Your task to perform on an android device: Open CNN.com Image 0: 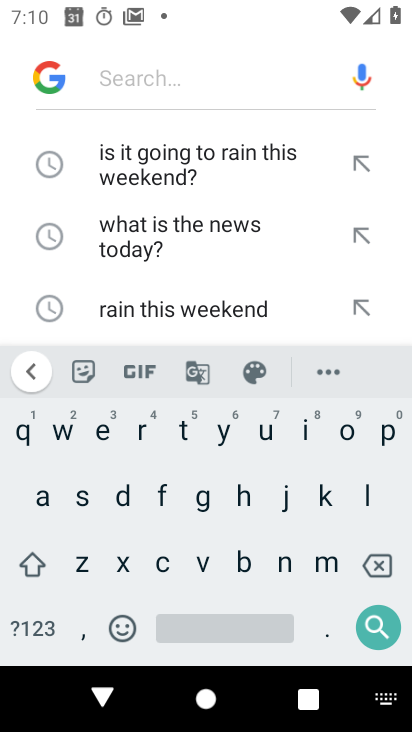
Step 0: press home button
Your task to perform on an android device: Open CNN.com Image 1: 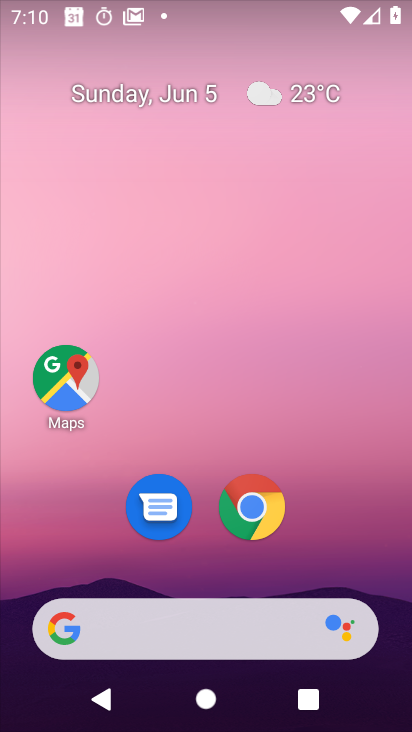
Step 1: drag from (242, 680) to (173, 58)
Your task to perform on an android device: Open CNN.com Image 2: 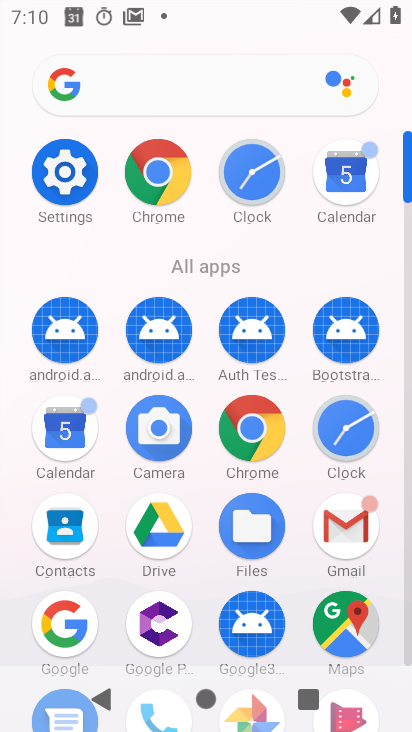
Step 2: click (172, 157)
Your task to perform on an android device: Open CNN.com Image 3: 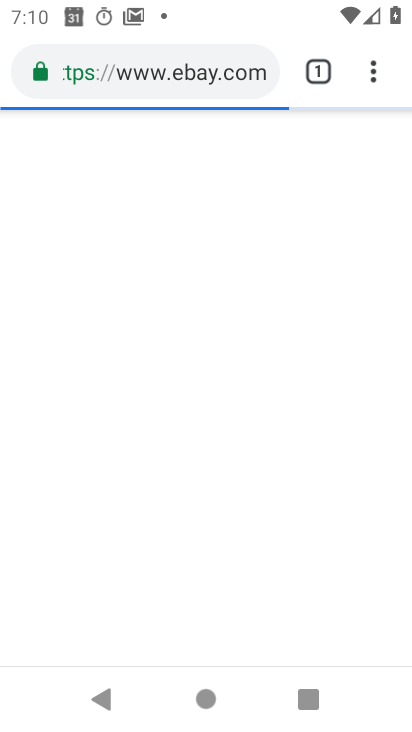
Step 3: click (157, 73)
Your task to perform on an android device: Open CNN.com Image 4: 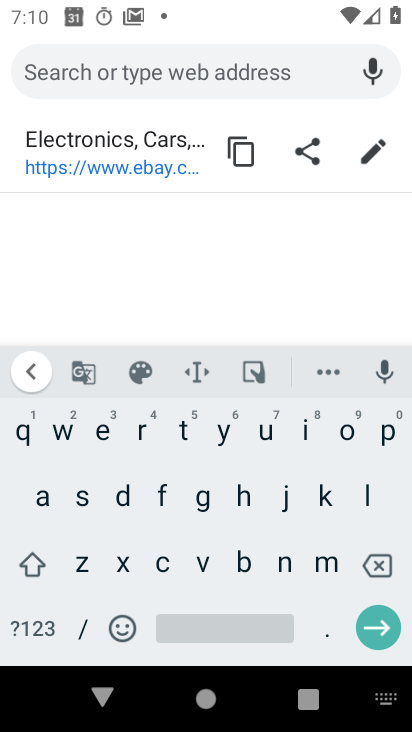
Step 4: click (160, 560)
Your task to perform on an android device: Open CNN.com Image 5: 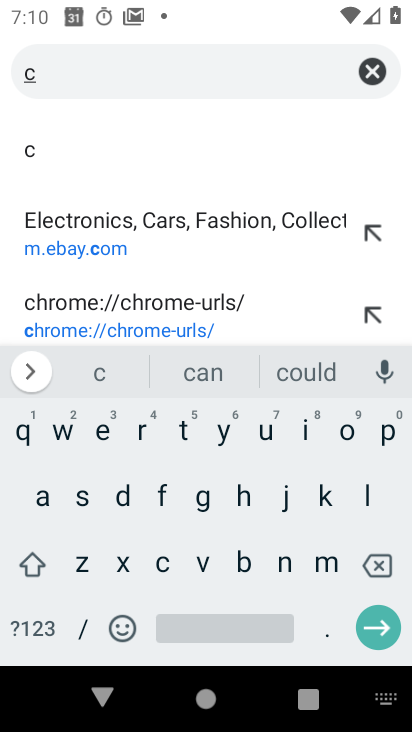
Step 5: click (285, 564)
Your task to perform on an android device: Open CNN.com Image 6: 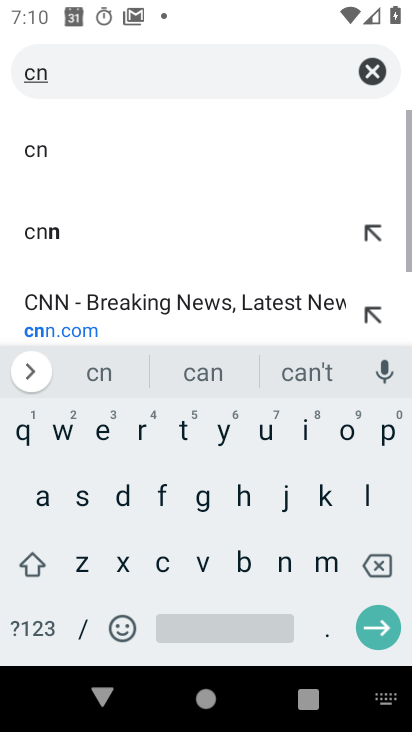
Step 6: click (285, 564)
Your task to perform on an android device: Open CNN.com Image 7: 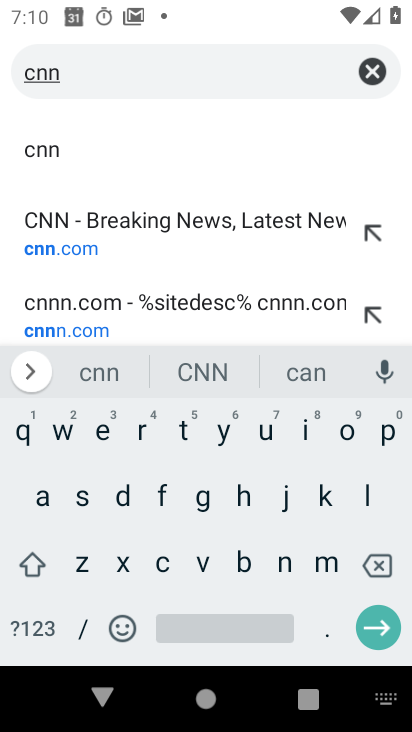
Step 7: click (325, 640)
Your task to perform on an android device: Open CNN.com Image 8: 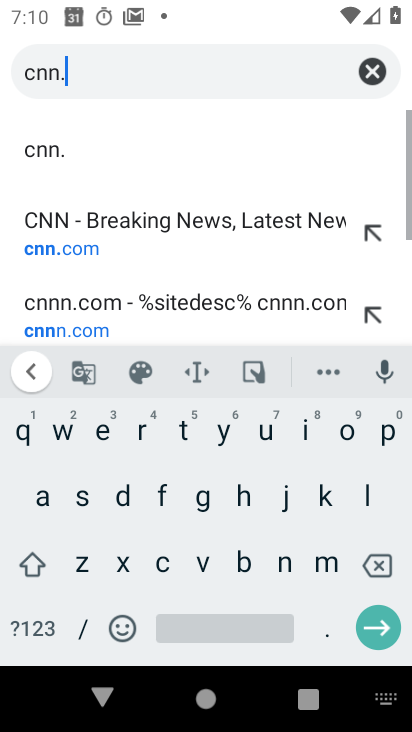
Step 8: click (164, 565)
Your task to perform on an android device: Open CNN.com Image 9: 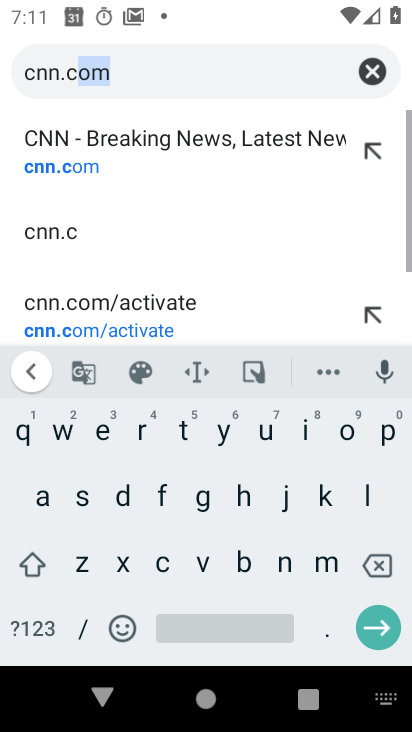
Step 9: click (343, 429)
Your task to perform on an android device: Open CNN.com Image 10: 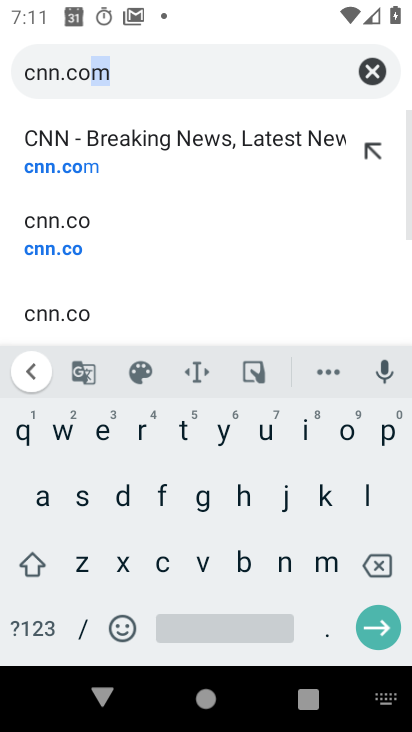
Step 10: click (377, 632)
Your task to perform on an android device: Open CNN.com Image 11: 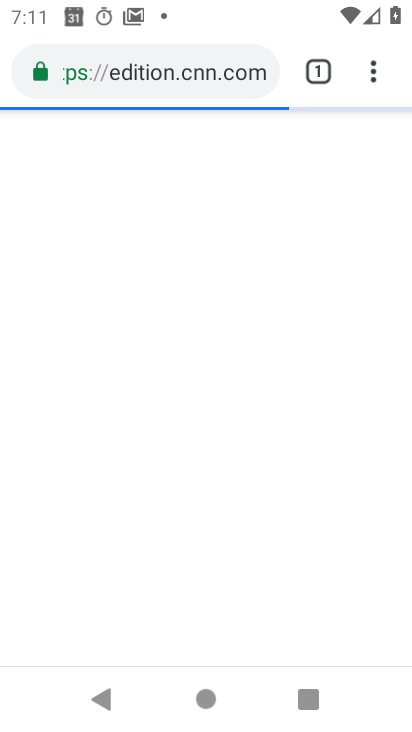
Step 11: task complete